Your task to perform on an android device: set an alarm Image 0: 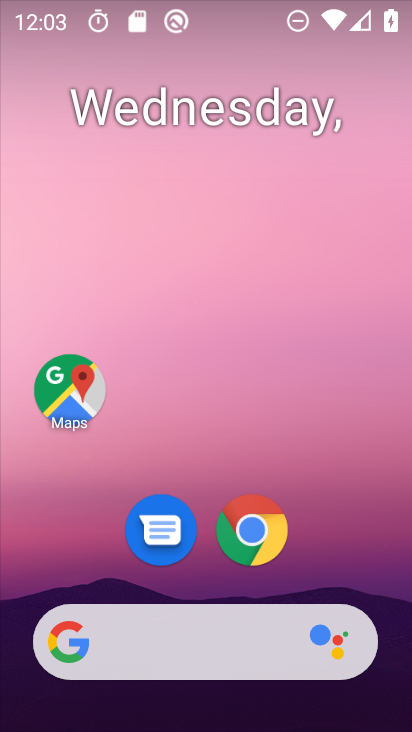
Step 0: drag from (350, 587) to (294, 18)
Your task to perform on an android device: set an alarm Image 1: 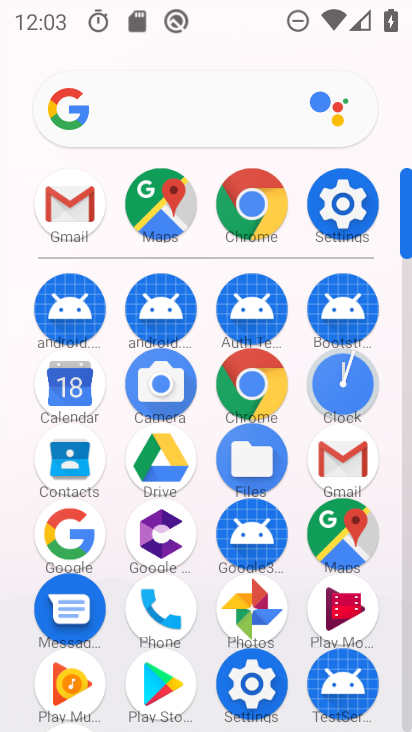
Step 1: drag from (210, 386) to (211, 551)
Your task to perform on an android device: set an alarm Image 2: 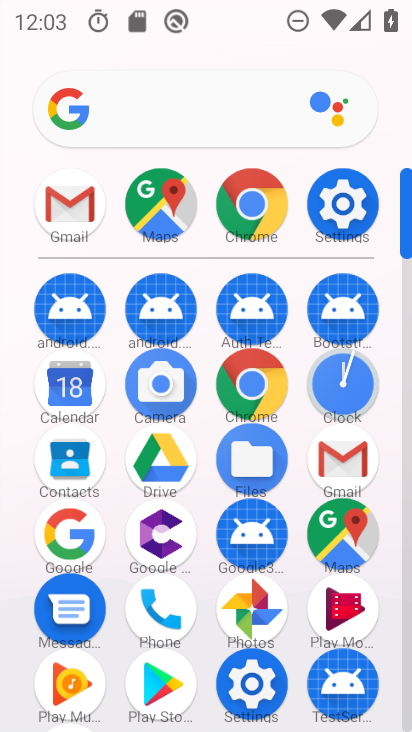
Step 2: click (360, 391)
Your task to perform on an android device: set an alarm Image 3: 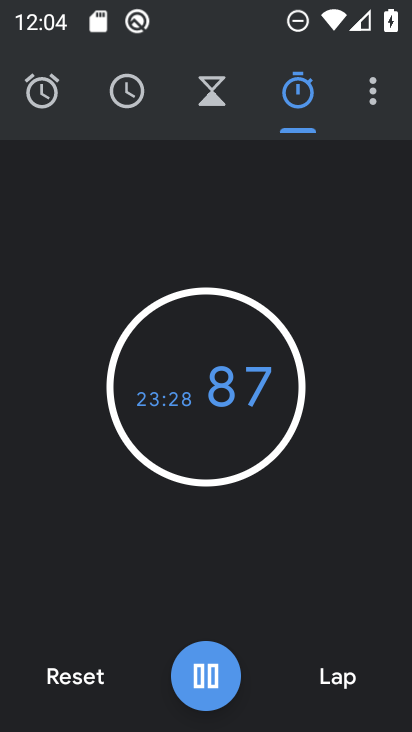
Step 3: click (42, 91)
Your task to perform on an android device: set an alarm Image 4: 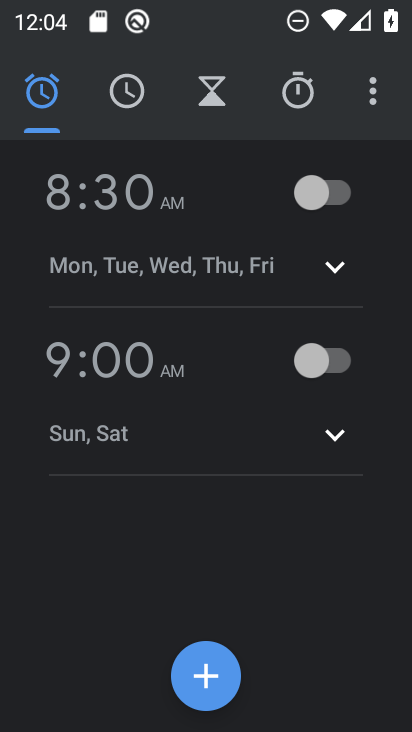
Step 4: click (335, 199)
Your task to perform on an android device: set an alarm Image 5: 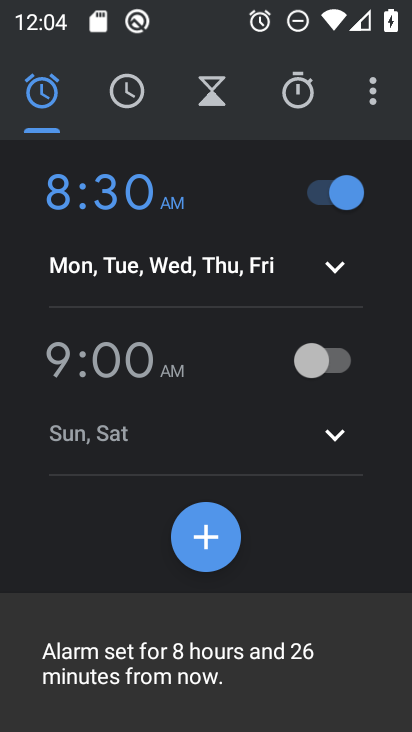
Step 5: task complete